Your task to perform on an android device: move a message to another label in the gmail app Image 0: 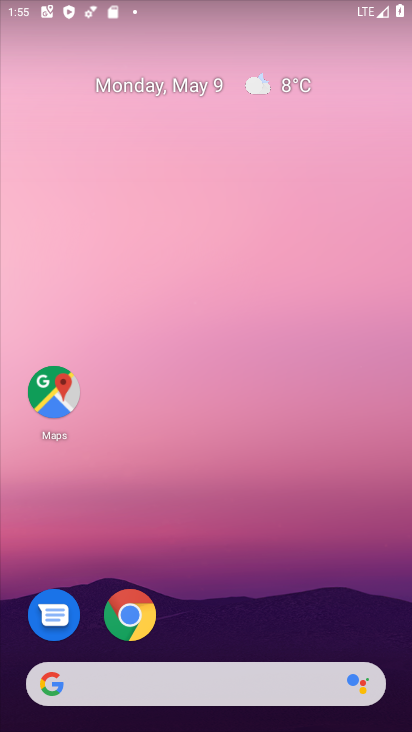
Step 0: drag from (388, 626) to (271, 90)
Your task to perform on an android device: move a message to another label in the gmail app Image 1: 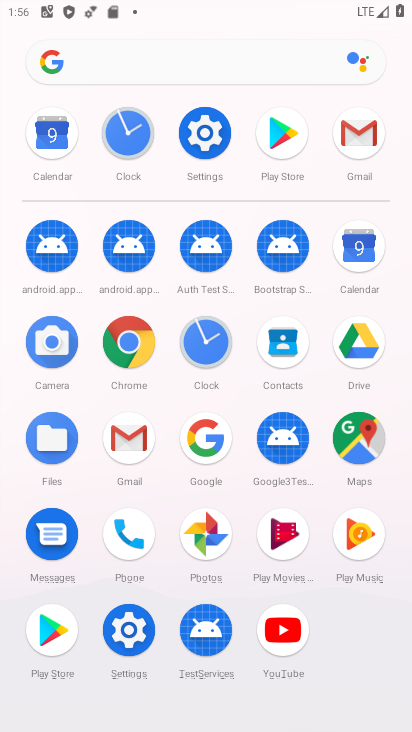
Step 1: click (128, 439)
Your task to perform on an android device: move a message to another label in the gmail app Image 2: 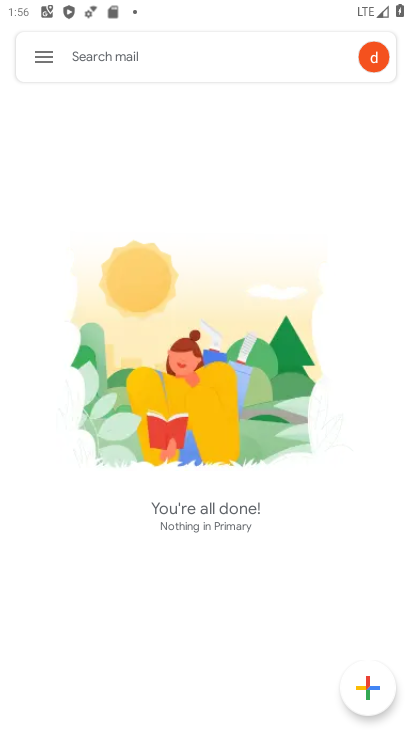
Step 2: click (41, 57)
Your task to perform on an android device: move a message to another label in the gmail app Image 3: 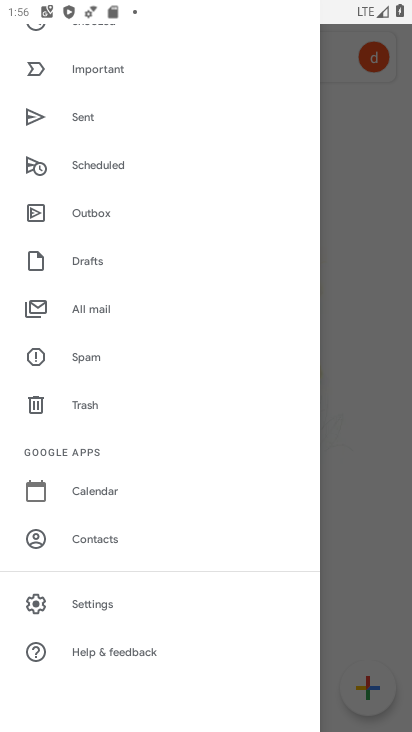
Step 3: click (91, 307)
Your task to perform on an android device: move a message to another label in the gmail app Image 4: 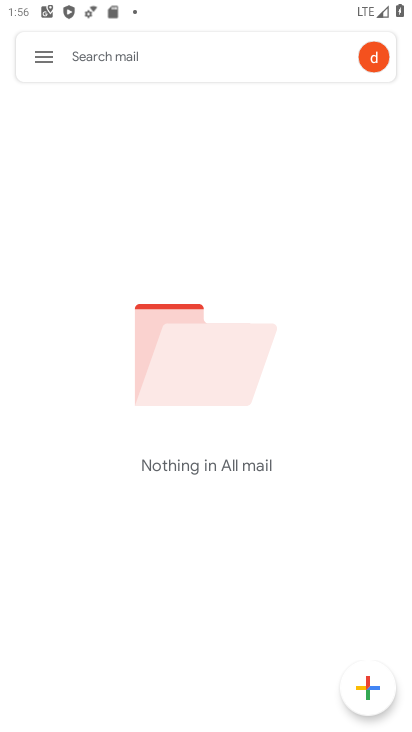
Step 4: task complete